Your task to perform on an android device: turn on sleep mode Image 0: 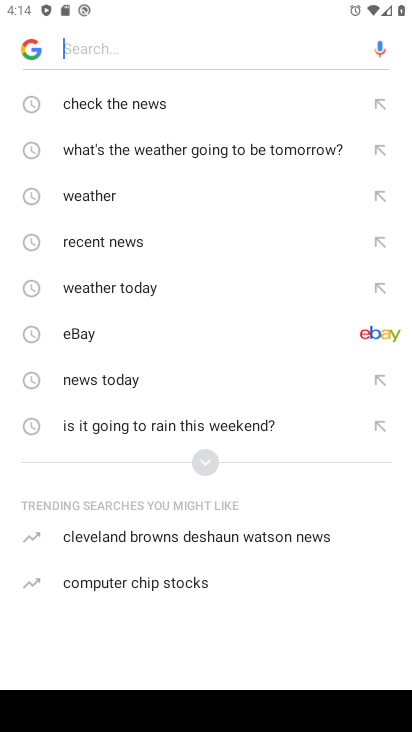
Step 0: press home button
Your task to perform on an android device: turn on sleep mode Image 1: 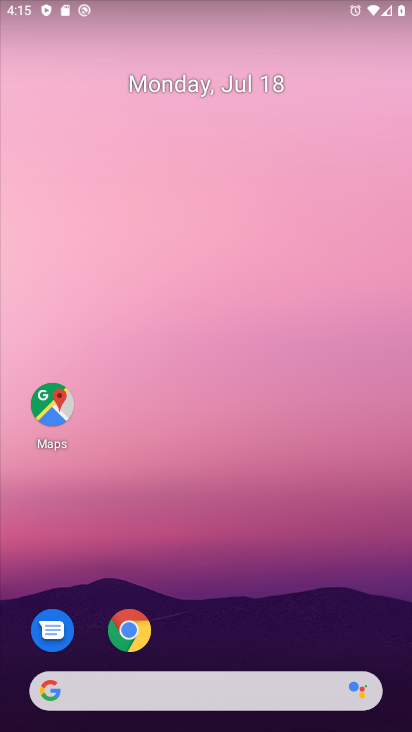
Step 1: drag from (249, 473) to (187, 133)
Your task to perform on an android device: turn on sleep mode Image 2: 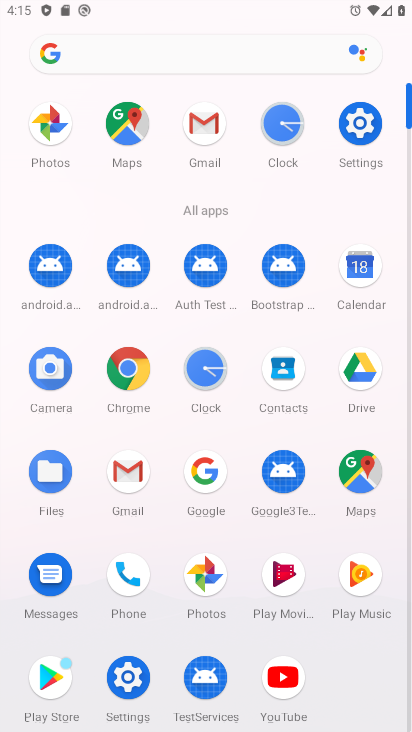
Step 2: click (365, 121)
Your task to perform on an android device: turn on sleep mode Image 3: 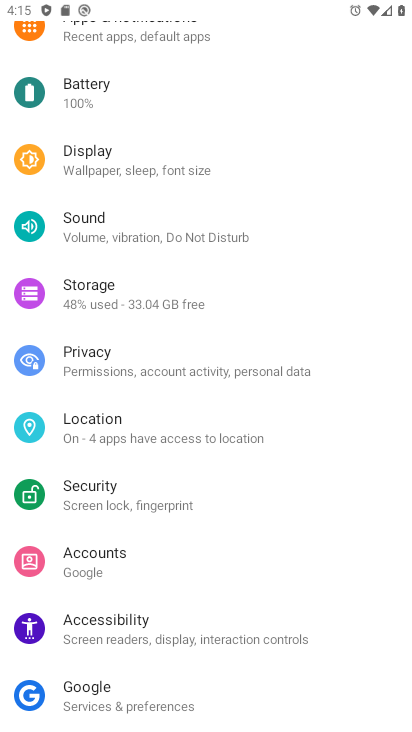
Step 3: click (69, 155)
Your task to perform on an android device: turn on sleep mode Image 4: 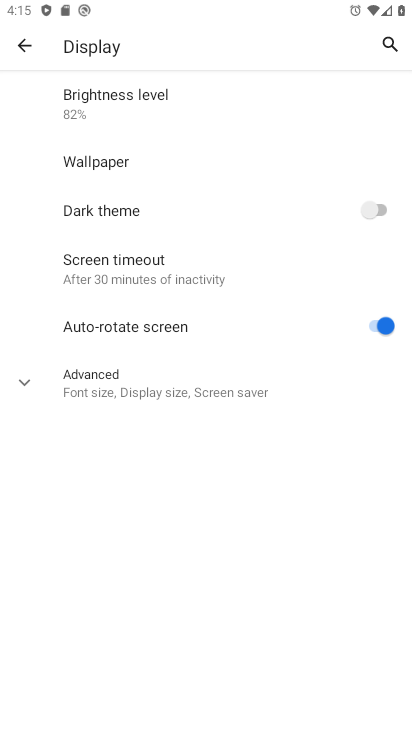
Step 4: task complete